Your task to perform on an android device: turn on javascript in the chrome app Image 0: 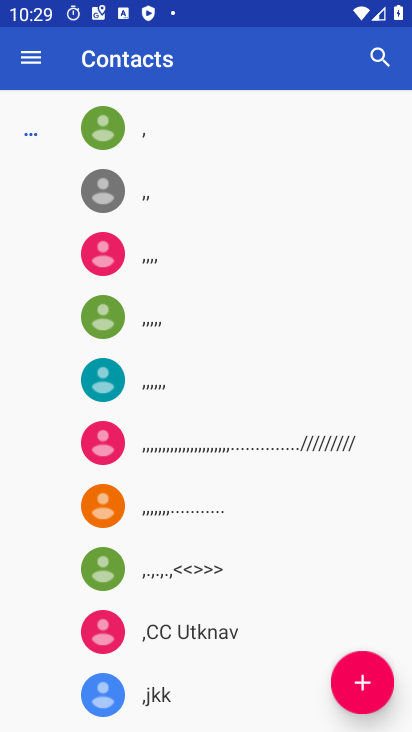
Step 0: press home button
Your task to perform on an android device: turn on javascript in the chrome app Image 1: 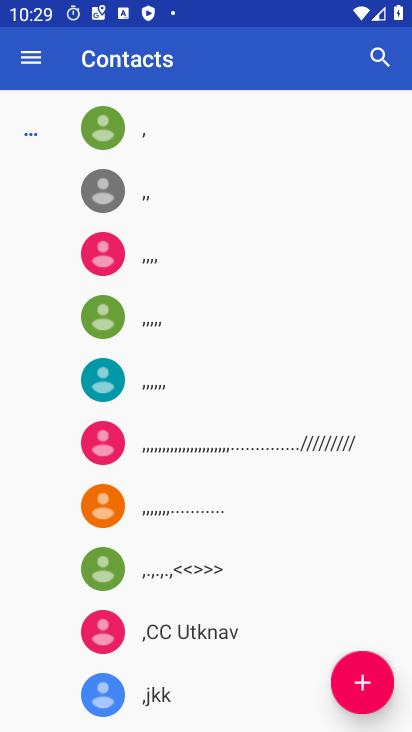
Step 1: press home button
Your task to perform on an android device: turn on javascript in the chrome app Image 2: 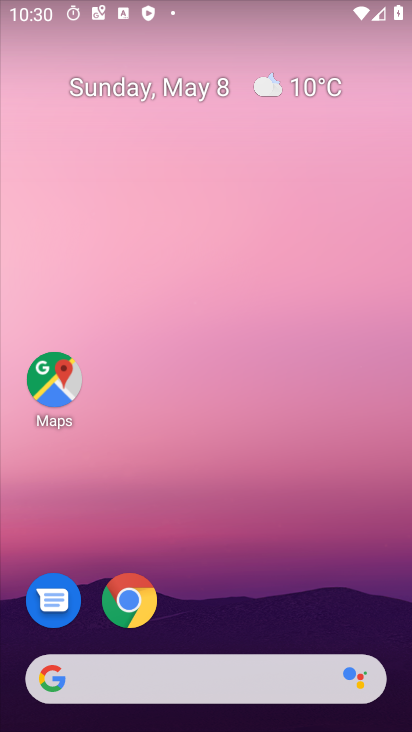
Step 2: click (136, 599)
Your task to perform on an android device: turn on javascript in the chrome app Image 3: 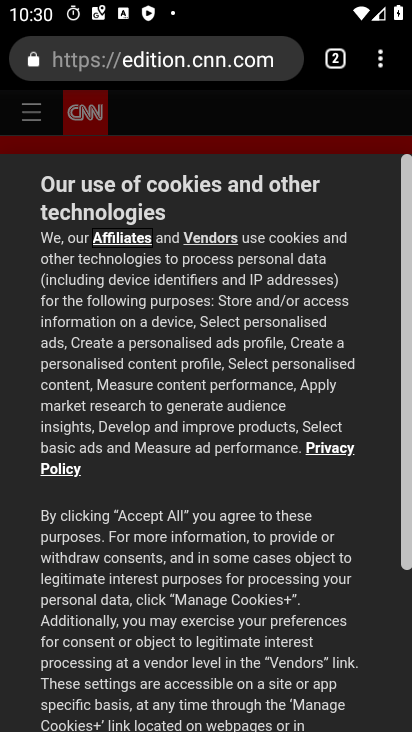
Step 3: click (377, 63)
Your task to perform on an android device: turn on javascript in the chrome app Image 4: 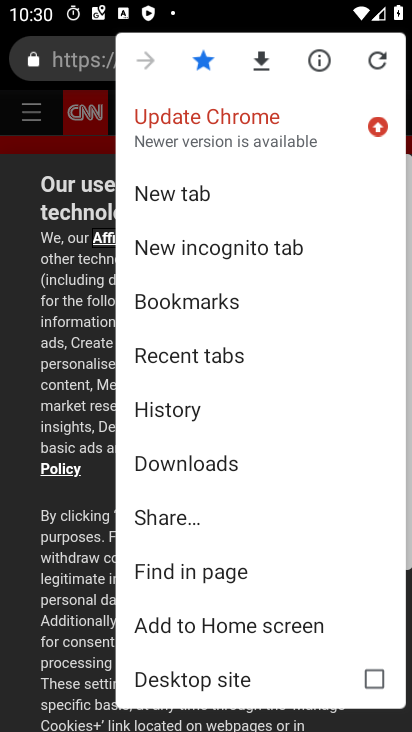
Step 4: drag from (236, 513) to (248, 220)
Your task to perform on an android device: turn on javascript in the chrome app Image 5: 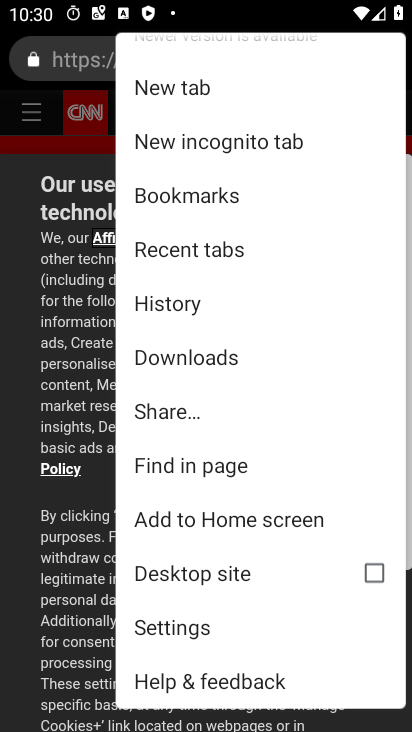
Step 5: click (231, 625)
Your task to perform on an android device: turn on javascript in the chrome app Image 6: 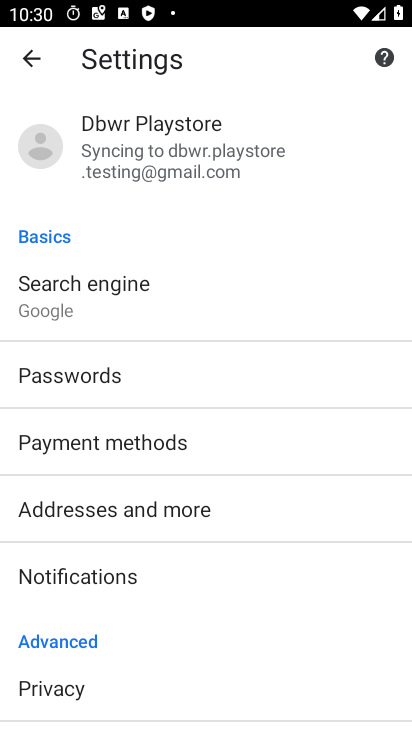
Step 6: drag from (189, 607) to (234, 218)
Your task to perform on an android device: turn on javascript in the chrome app Image 7: 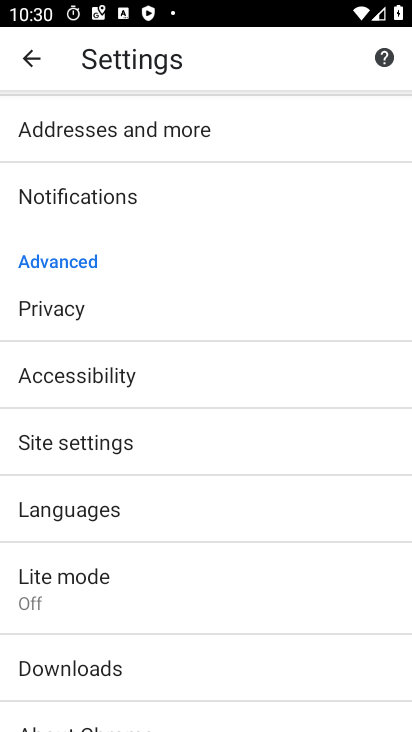
Step 7: click (140, 448)
Your task to perform on an android device: turn on javascript in the chrome app Image 8: 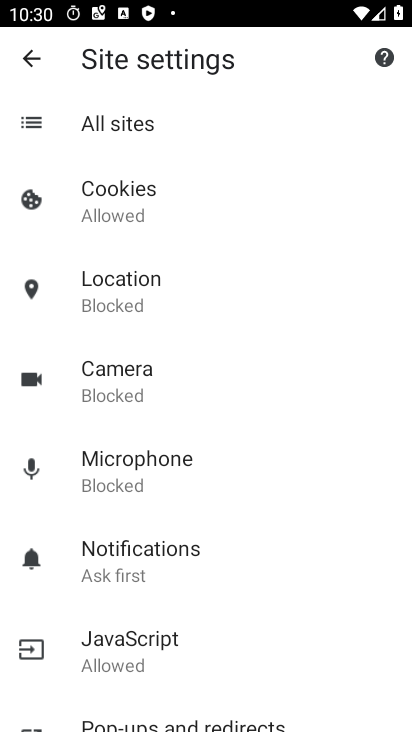
Step 8: click (158, 636)
Your task to perform on an android device: turn on javascript in the chrome app Image 9: 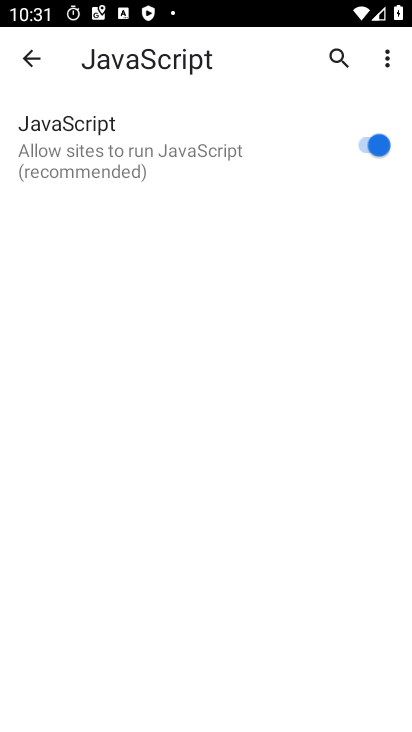
Step 9: task complete